Your task to perform on an android device: Go to privacy settings Image 0: 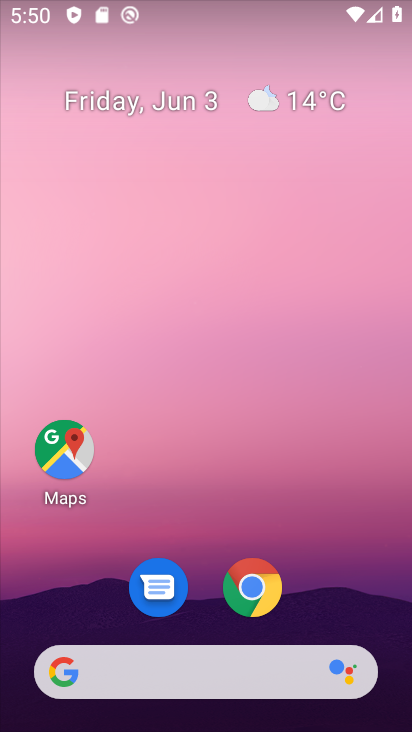
Step 0: drag from (333, 494) to (219, 74)
Your task to perform on an android device: Go to privacy settings Image 1: 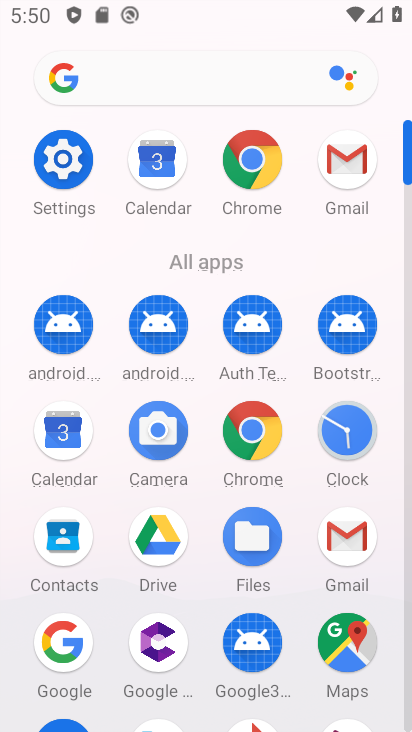
Step 1: drag from (14, 400) to (18, 213)
Your task to perform on an android device: Go to privacy settings Image 2: 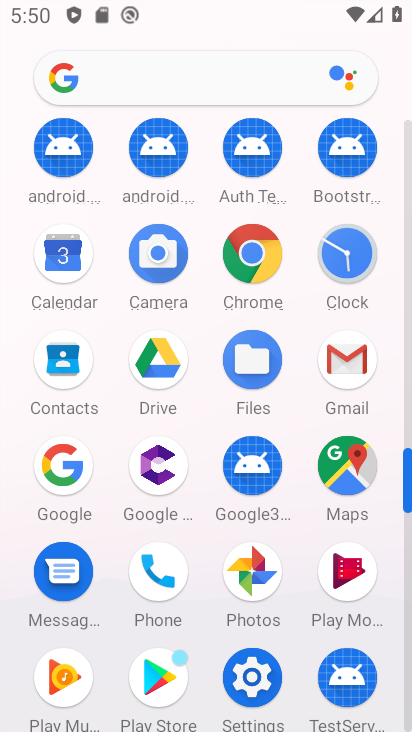
Step 2: click (252, 674)
Your task to perform on an android device: Go to privacy settings Image 3: 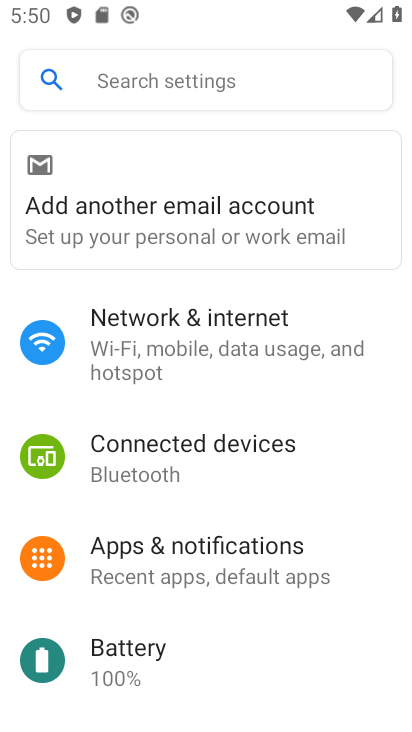
Step 3: drag from (298, 620) to (340, 210)
Your task to perform on an android device: Go to privacy settings Image 4: 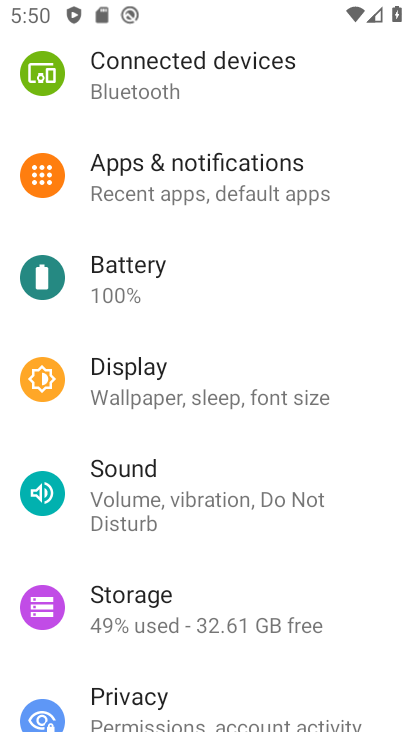
Step 4: drag from (262, 595) to (276, 227)
Your task to perform on an android device: Go to privacy settings Image 5: 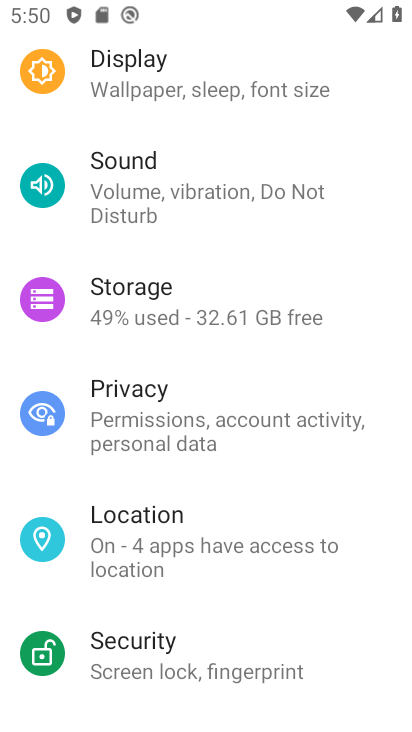
Step 5: drag from (218, 572) to (232, 209)
Your task to perform on an android device: Go to privacy settings Image 6: 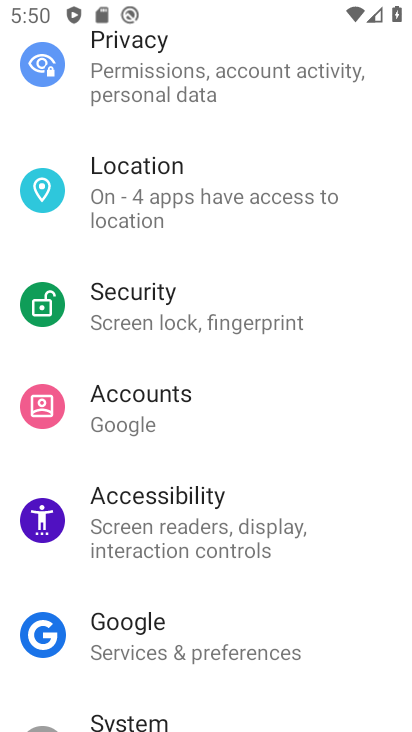
Step 6: drag from (251, 542) to (254, 187)
Your task to perform on an android device: Go to privacy settings Image 7: 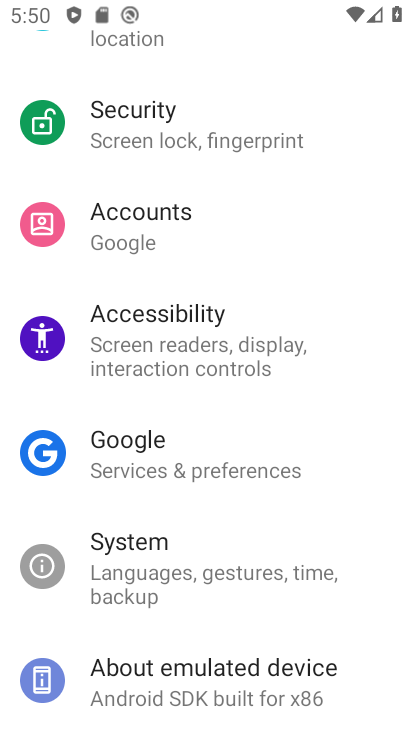
Step 7: drag from (241, 581) to (284, 203)
Your task to perform on an android device: Go to privacy settings Image 8: 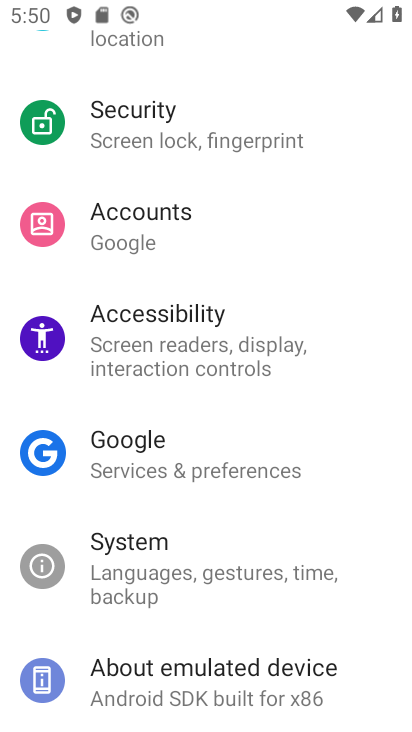
Step 8: drag from (262, 196) to (243, 620)
Your task to perform on an android device: Go to privacy settings Image 9: 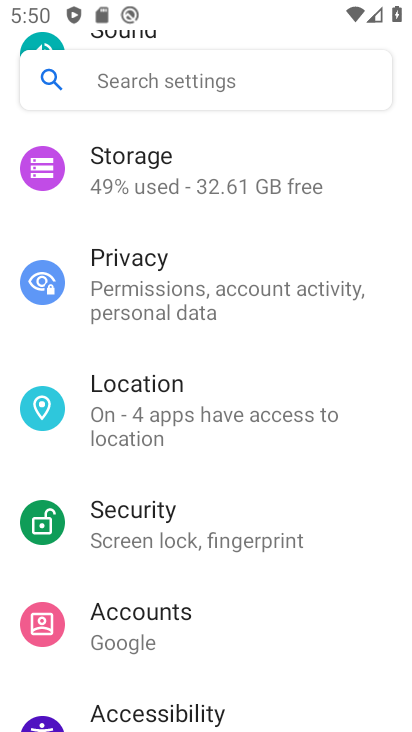
Step 9: drag from (213, 219) to (231, 561)
Your task to perform on an android device: Go to privacy settings Image 10: 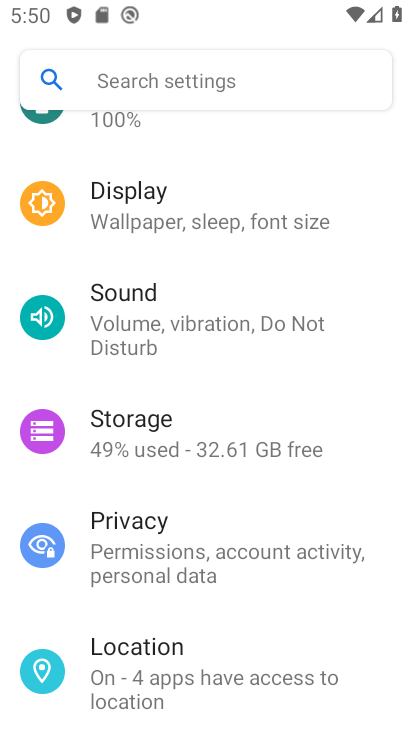
Step 10: click (175, 536)
Your task to perform on an android device: Go to privacy settings Image 11: 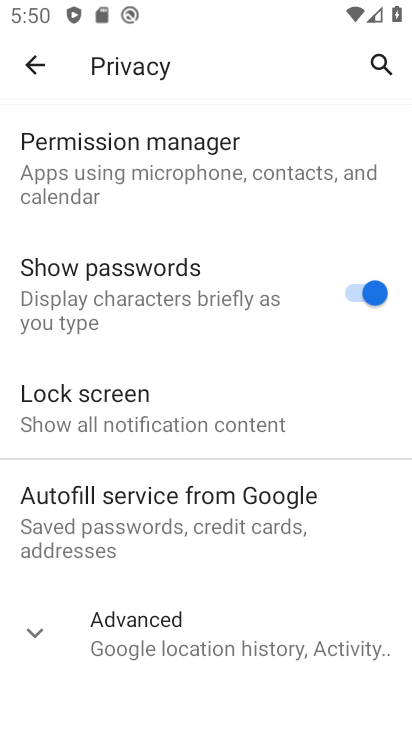
Step 11: click (31, 635)
Your task to perform on an android device: Go to privacy settings Image 12: 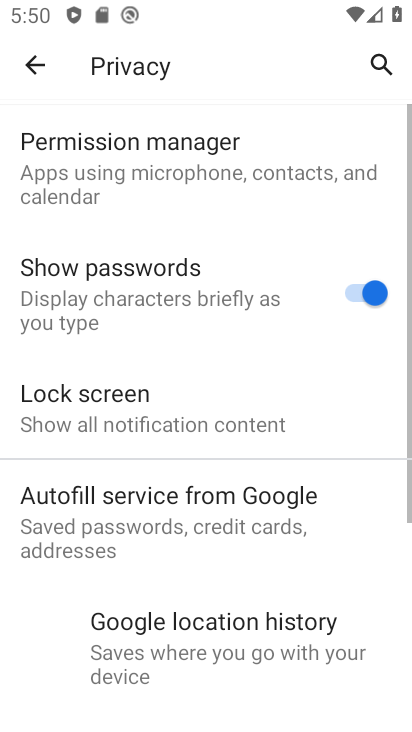
Step 12: drag from (202, 644) to (251, 168)
Your task to perform on an android device: Go to privacy settings Image 13: 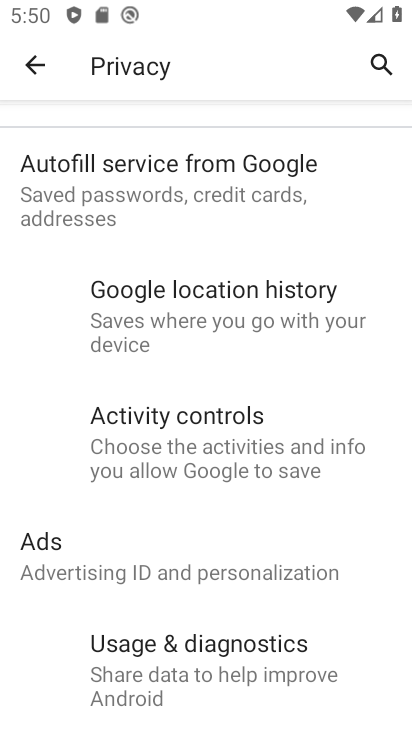
Step 13: drag from (252, 269) to (249, 600)
Your task to perform on an android device: Go to privacy settings Image 14: 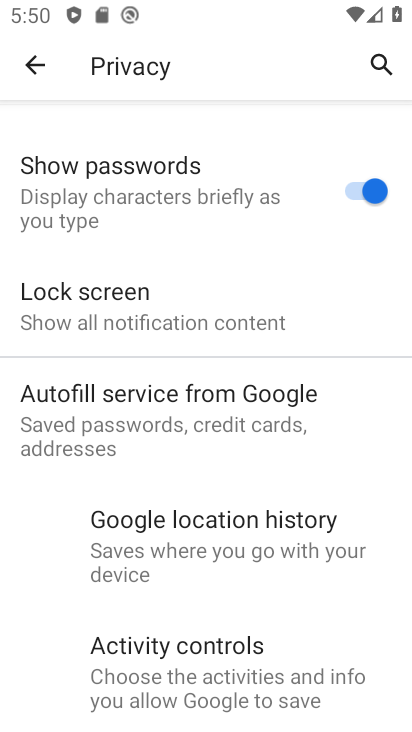
Step 14: click (249, 683)
Your task to perform on an android device: Go to privacy settings Image 15: 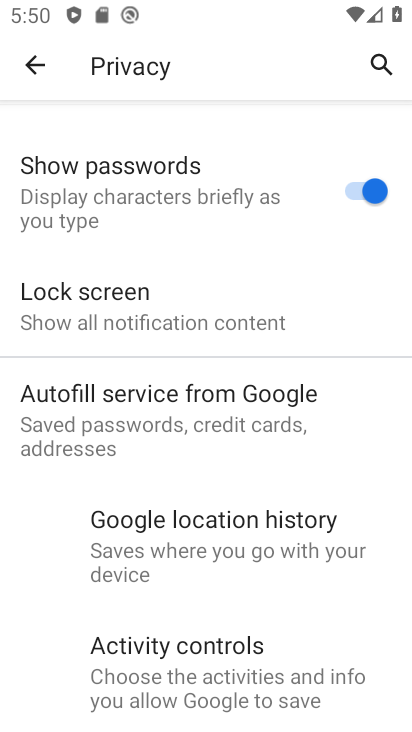
Step 15: drag from (245, 195) to (245, 630)
Your task to perform on an android device: Go to privacy settings Image 16: 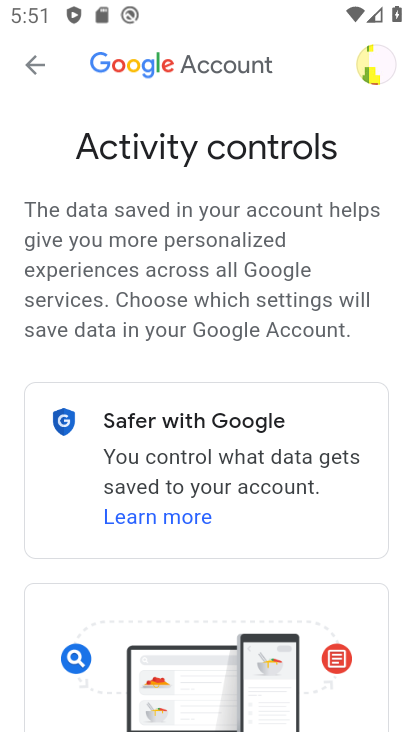
Step 16: press back button
Your task to perform on an android device: Go to privacy settings Image 17: 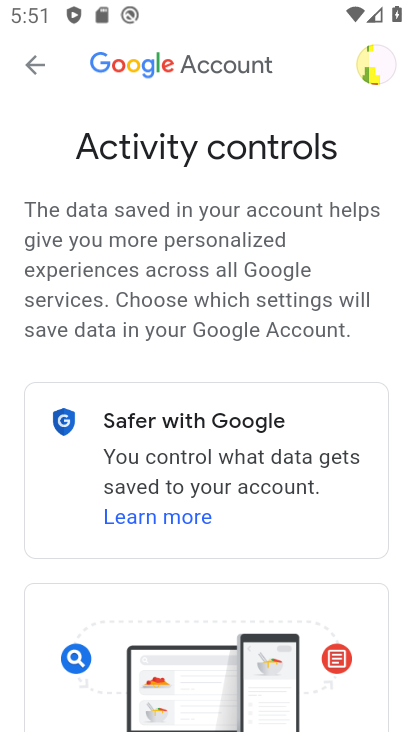
Step 17: click (41, 60)
Your task to perform on an android device: Go to privacy settings Image 18: 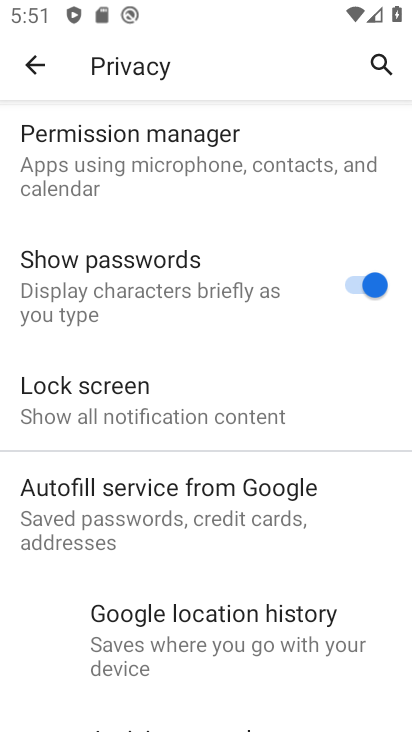
Step 18: task complete